Your task to perform on an android device: Clear all items from cart on ebay. Add "logitech g pro" to the cart on ebay Image 0: 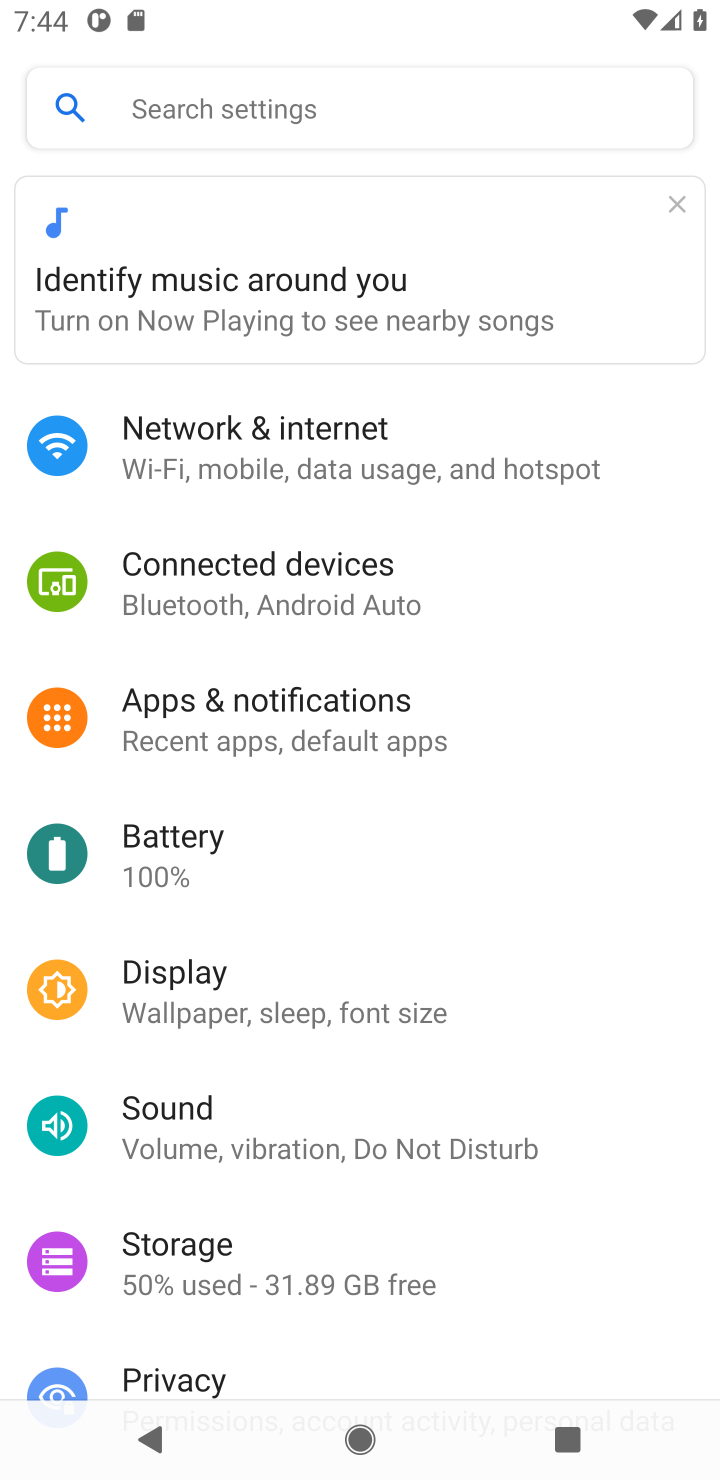
Step 0: press home button
Your task to perform on an android device: Clear all items from cart on ebay. Add "logitech g pro" to the cart on ebay Image 1: 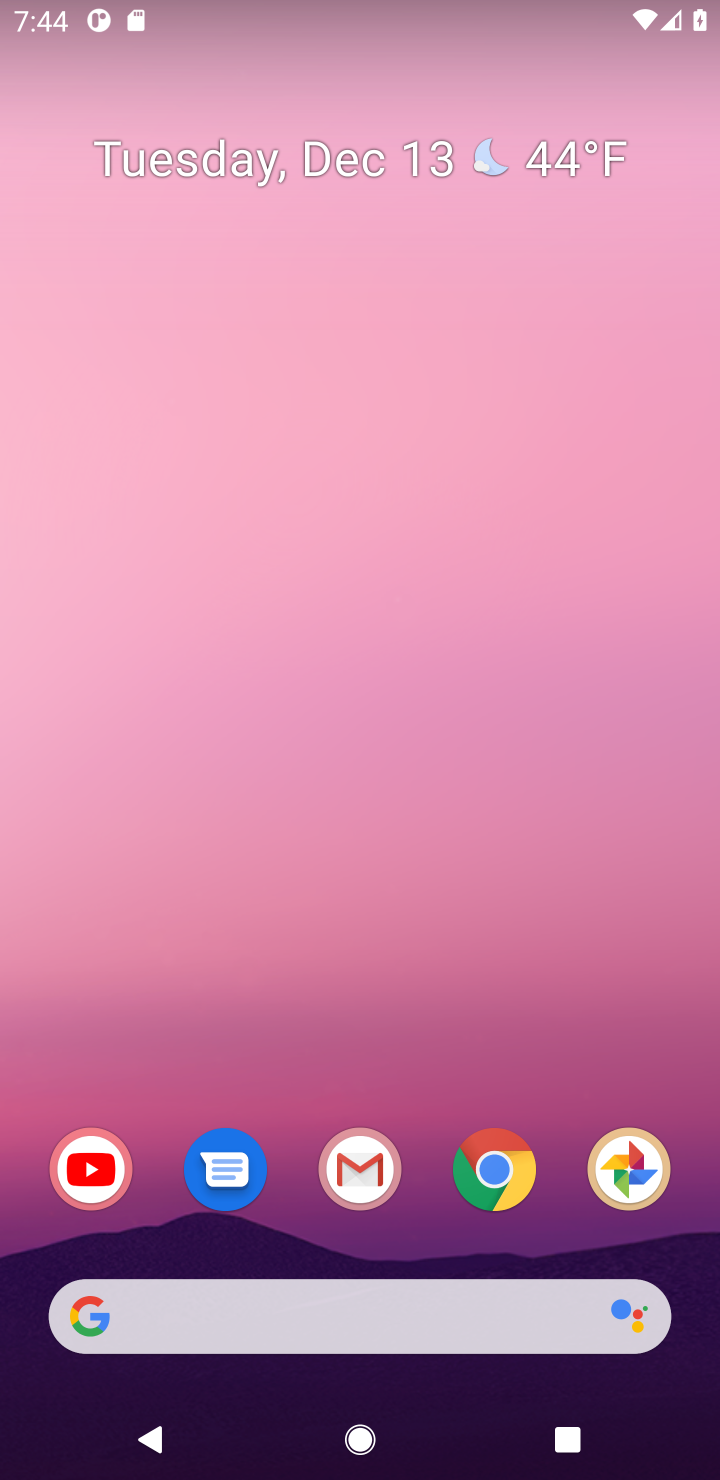
Step 1: click (495, 1207)
Your task to perform on an android device: Clear all items from cart on ebay. Add "logitech g pro" to the cart on ebay Image 2: 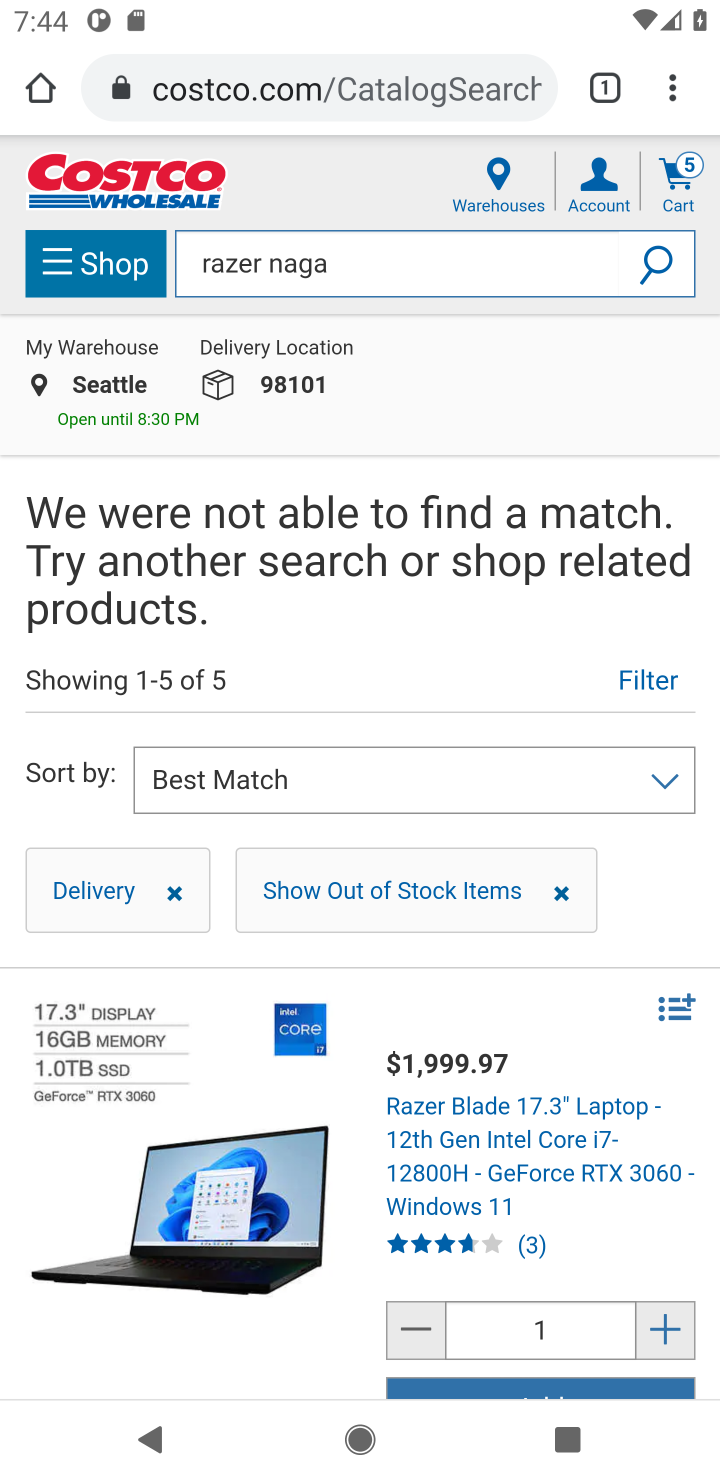
Step 2: click (313, 89)
Your task to perform on an android device: Clear all items from cart on ebay. Add "logitech g pro" to the cart on ebay Image 3: 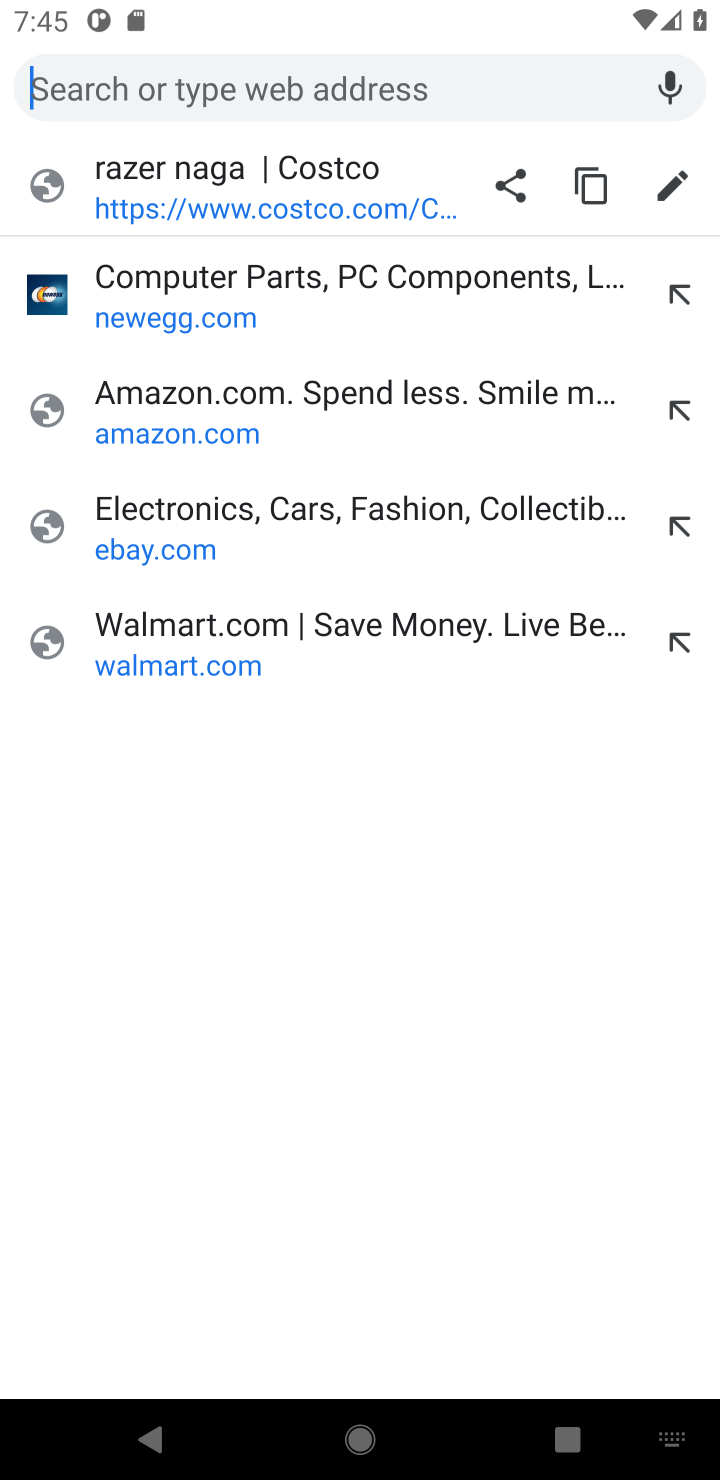
Step 3: type "ebay.com"
Your task to perform on an android device: Clear all items from cart on ebay. Add "logitech g pro" to the cart on ebay Image 4: 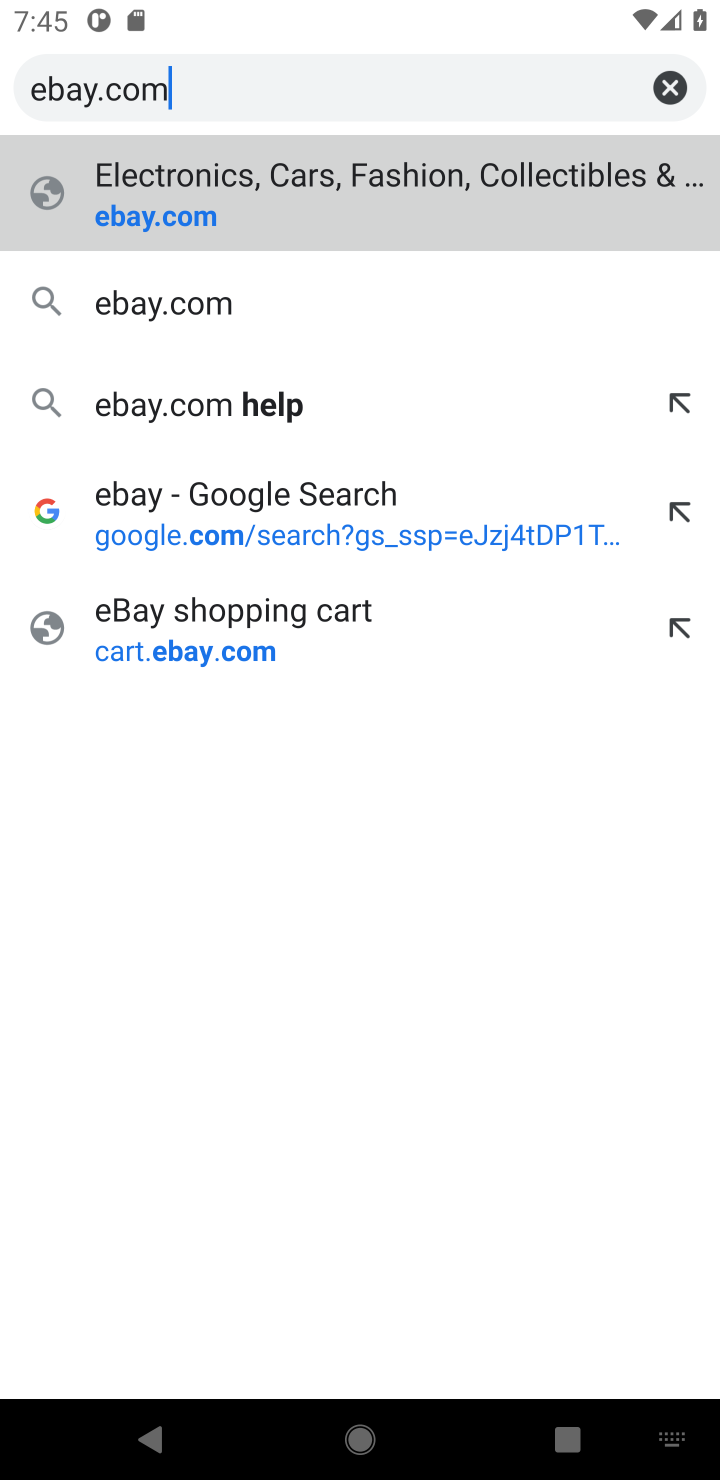
Step 4: click (213, 177)
Your task to perform on an android device: Clear all items from cart on ebay. Add "logitech g pro" to the cart on ebay Image 5: 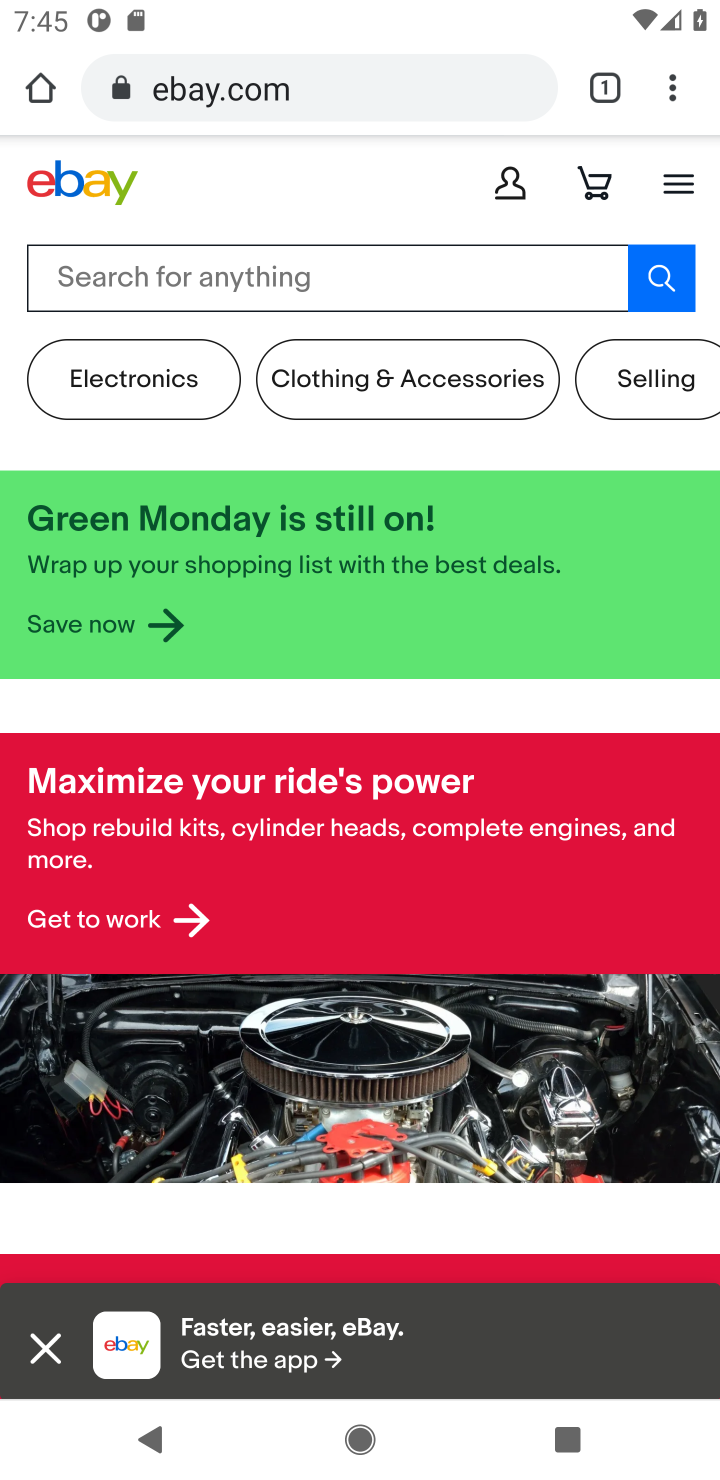
Step 5: click (178, 278)
Your task to perform on an android device: Clear all items from cart on ebay. Add "logitech g pro" to the cart on ebay Image 6: 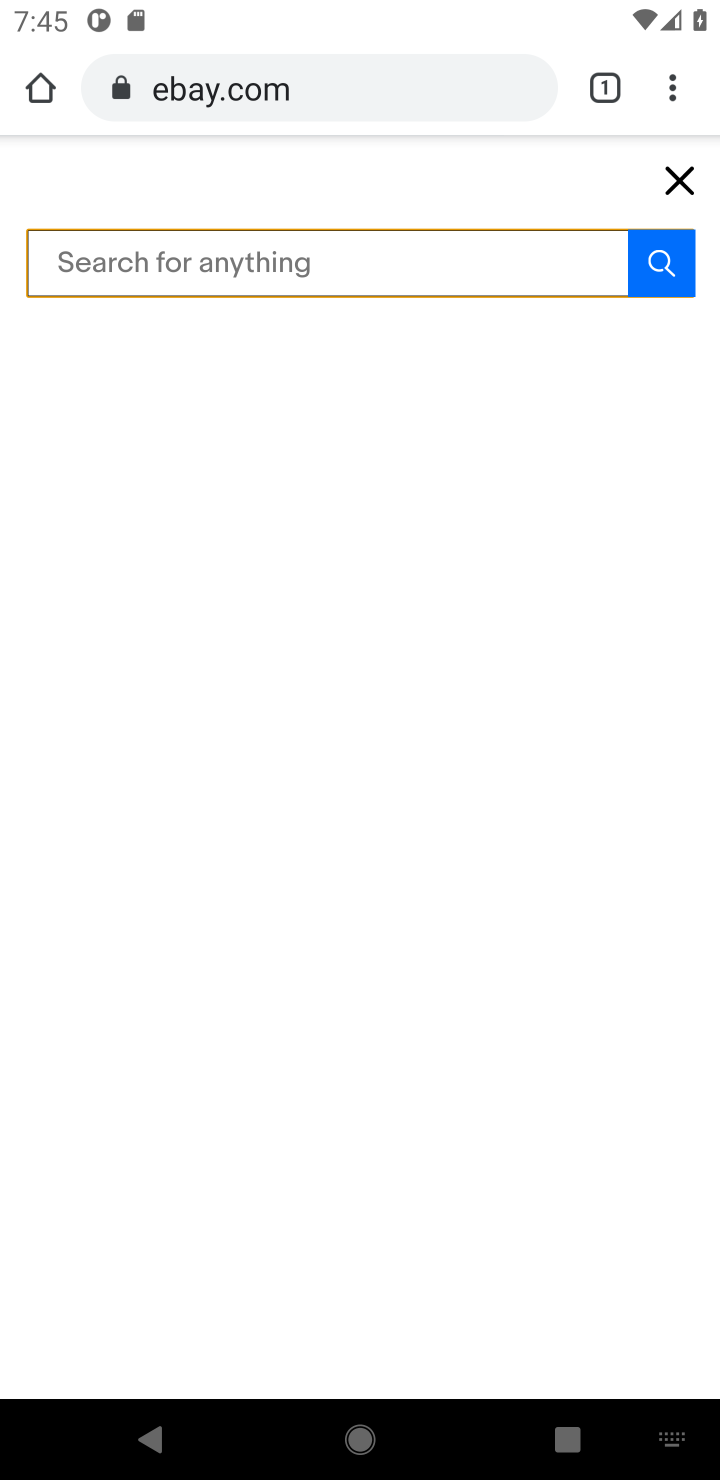
Step 6: type "logitech g pro"
Your task to perform on an android device: Clear all items from cart on ebay. Add "logitech g pro" to the cart on ebay Image 7: 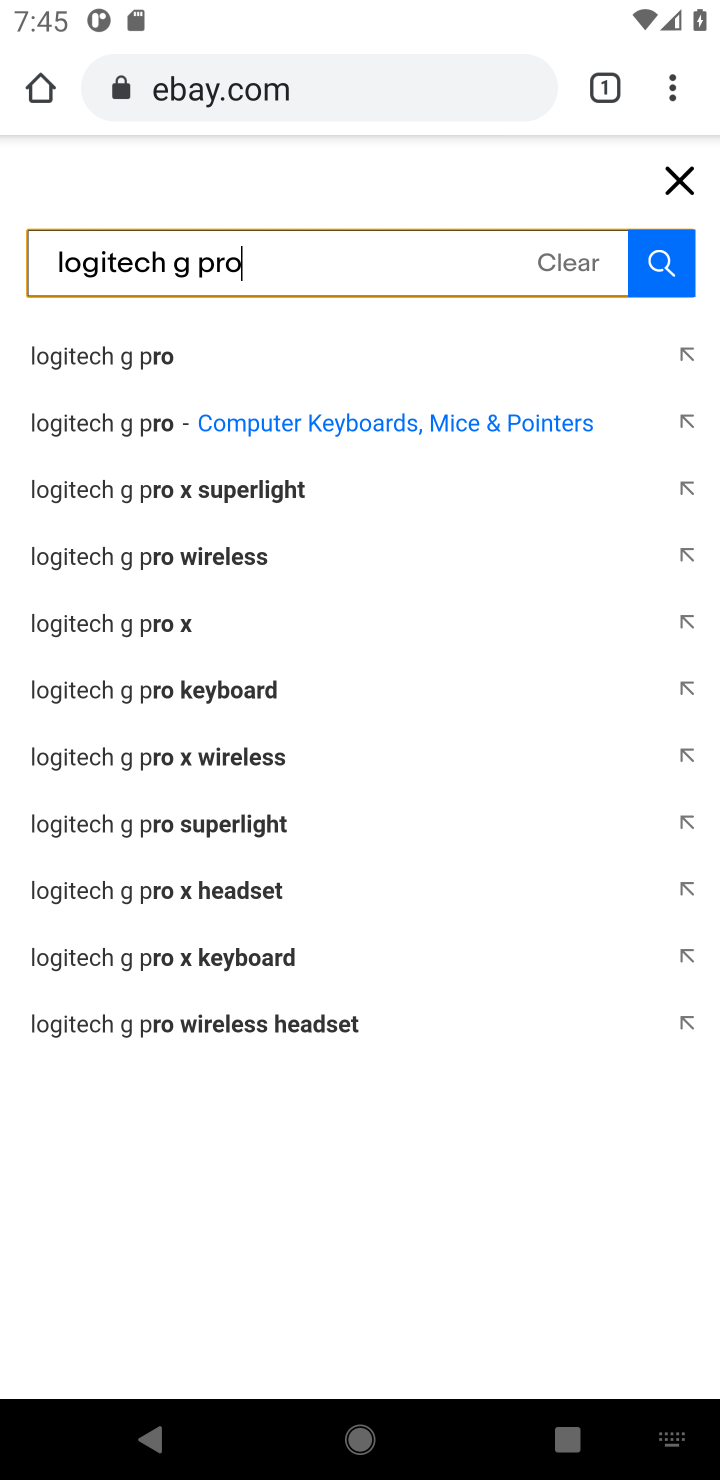
Step 7: click (636, 266)
Your task to perform on an android device: Clear all items from cart on ebay. Add "logitech g pro" to the cart on ebay Image 8: 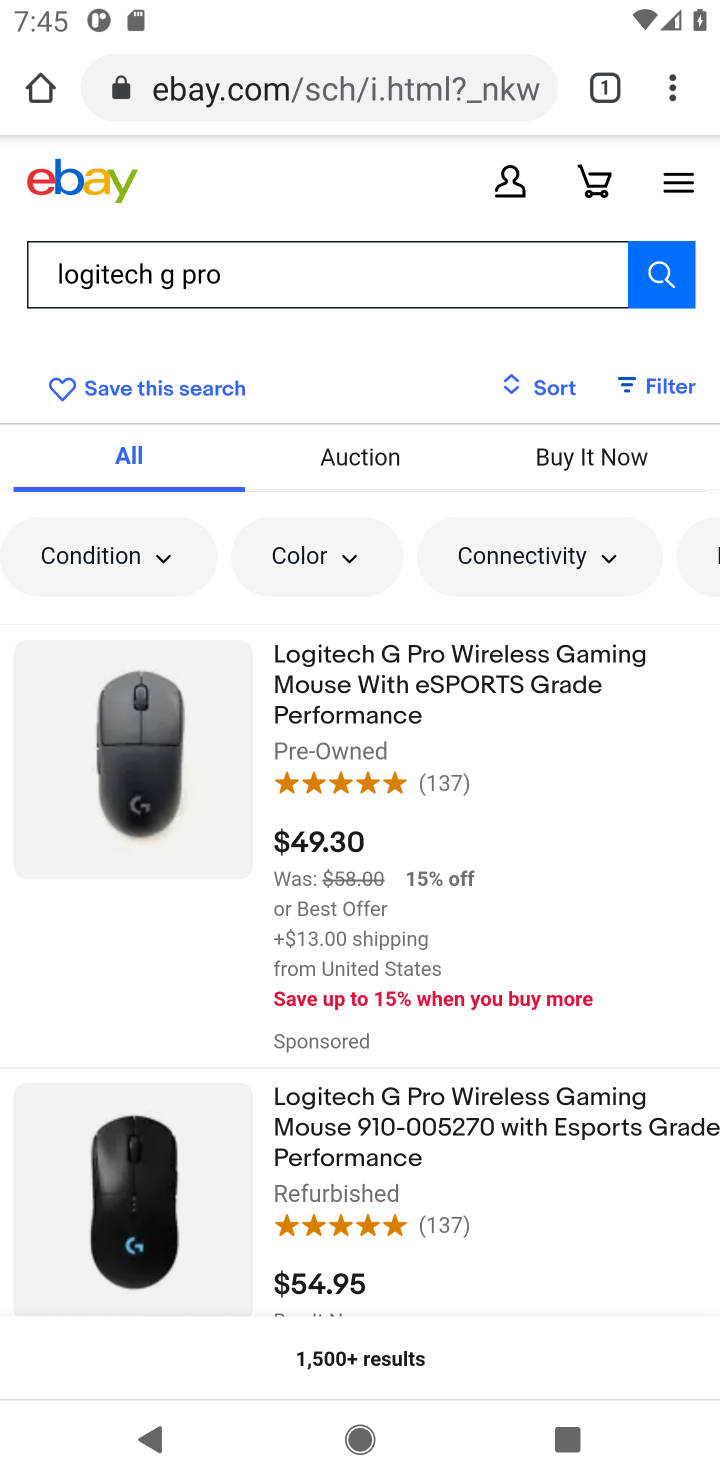
Step 8: click (393, 738)
Your task to perform on an android device: Clear all items from cart on ebay. Add "logitech g pro" to the cart on ebay Image 9: 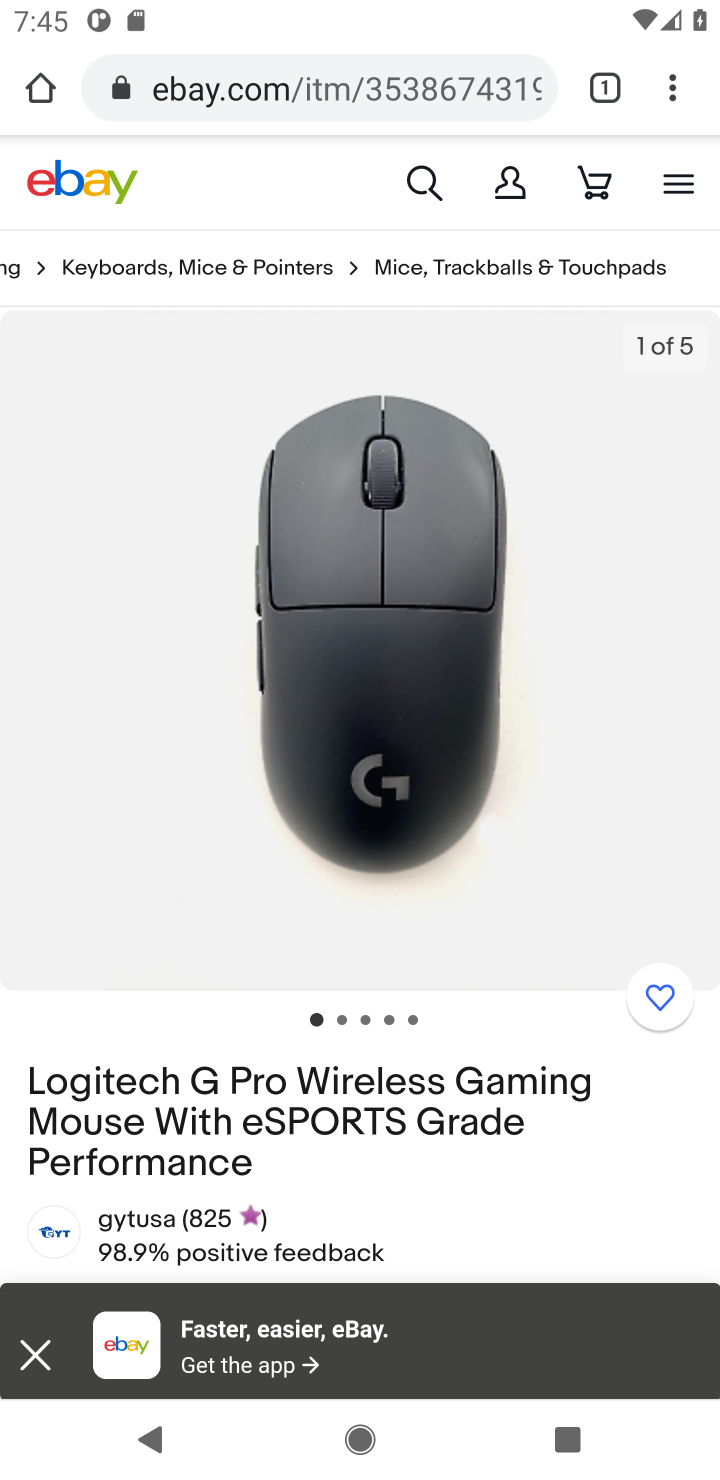
Step 9: drag from (427, 995) to (396, 574)
Your task to perform on an android device: Clear all items from cart on ebay. Add "logitech g pro" to the cart on ebay Image 10: 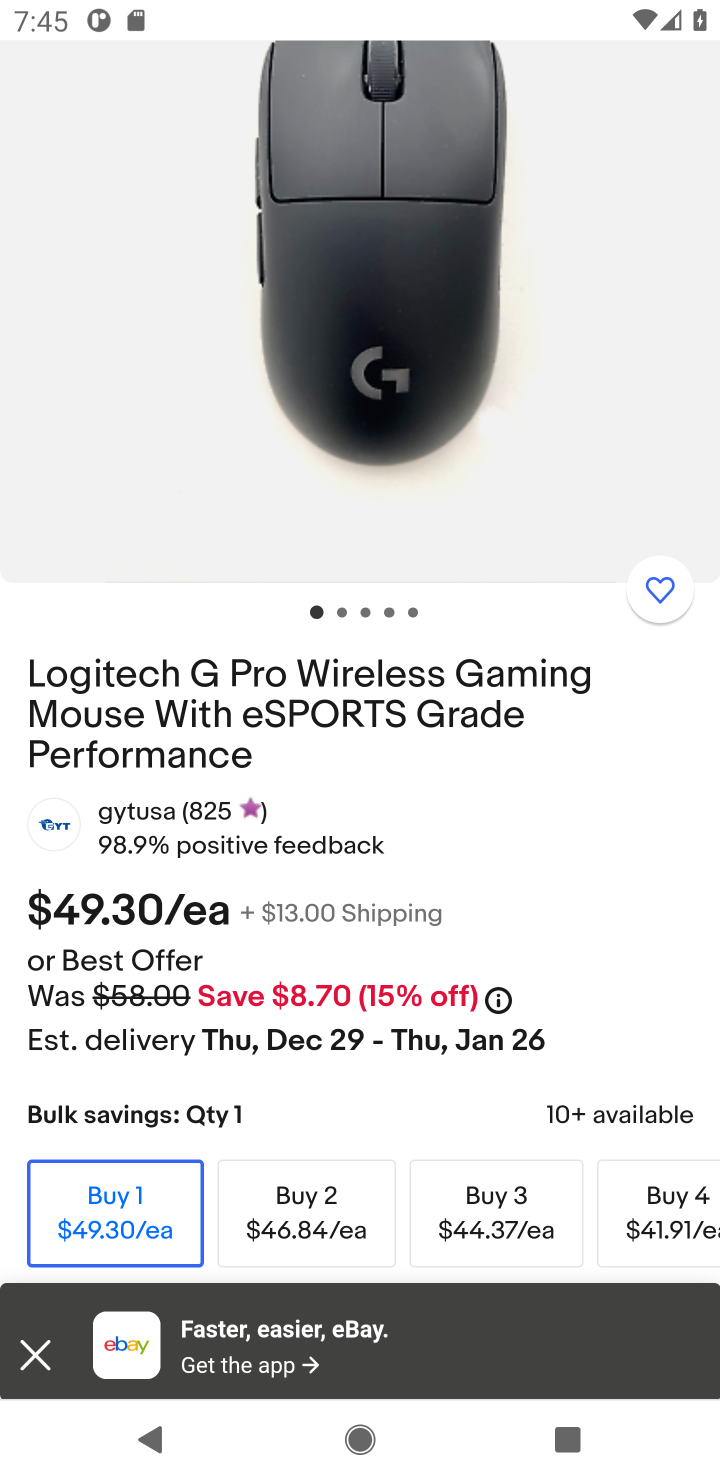
Step 10: drag from (443, 1081) to (422, 728)
Your task to perform on an android device: Clear all items from cart on ebay. Add "logitech g pro" to the cart on ebay Image 11: 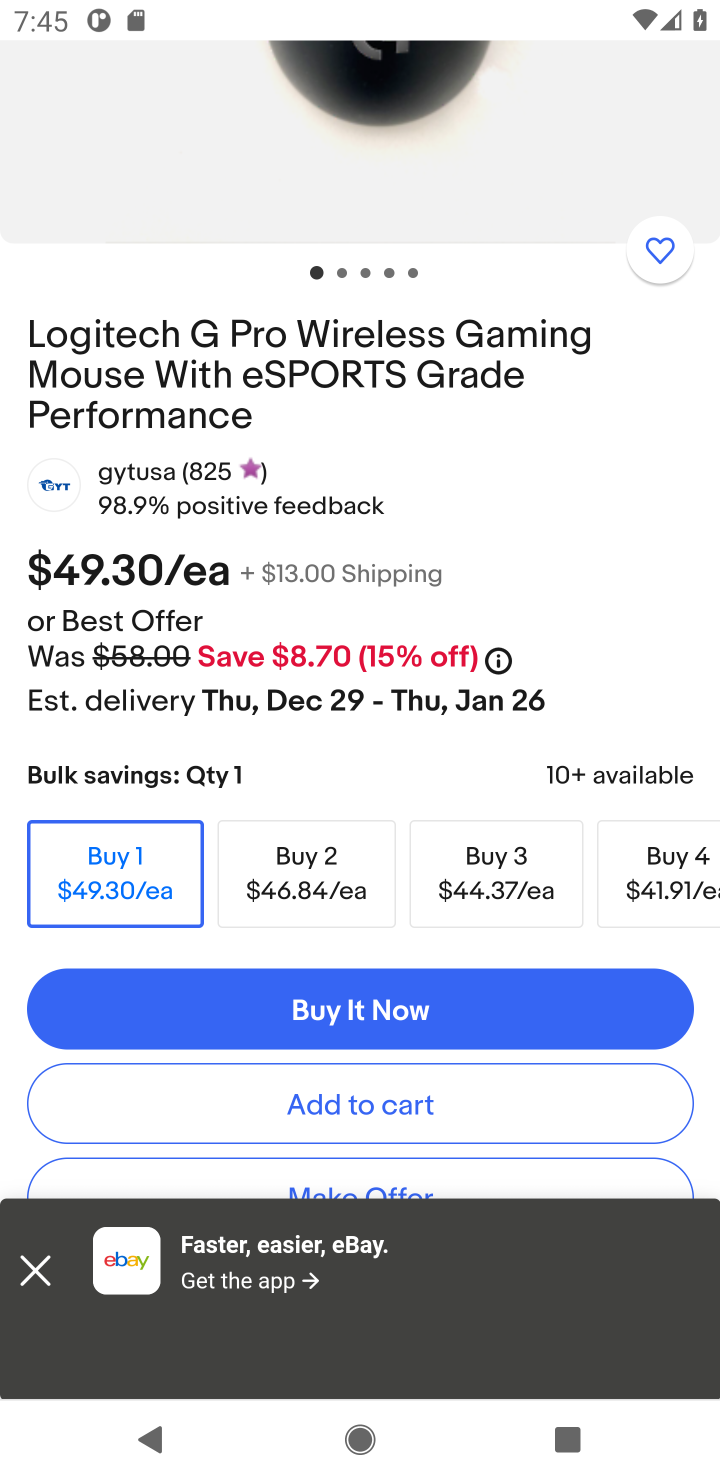
Step 11: click (42, 1265)
Your task to perform on an android device: Clear all items from cart on ebay. Add "logitech g pro" to the cart on ebay Image 12: 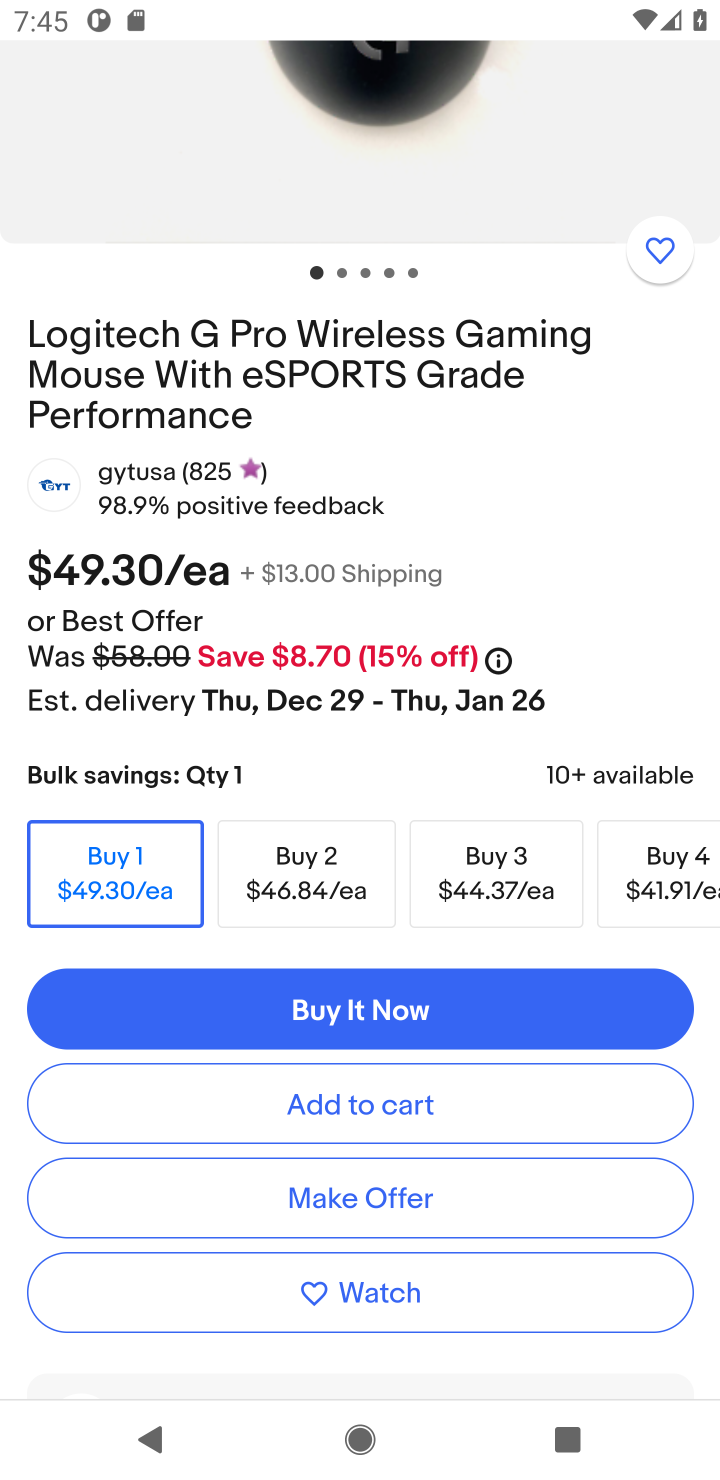
Step 12: click (417, 1093)
Your task to perform on an android device: Clear all items from cart on ebay. Add "logitech g pro" to the cart on ebay Image 13: 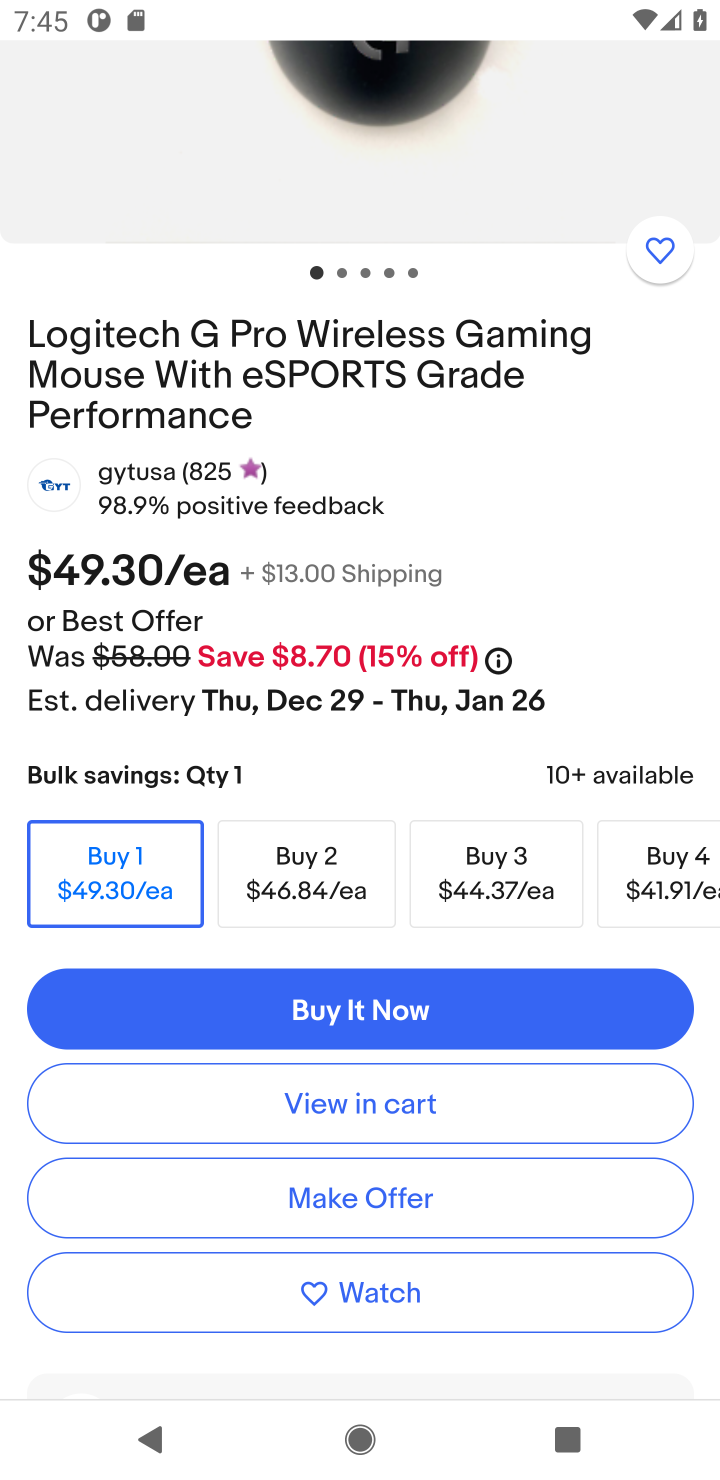
Step 13: task complete